Your task to perform on an android device: Open Google Maps Image 0: 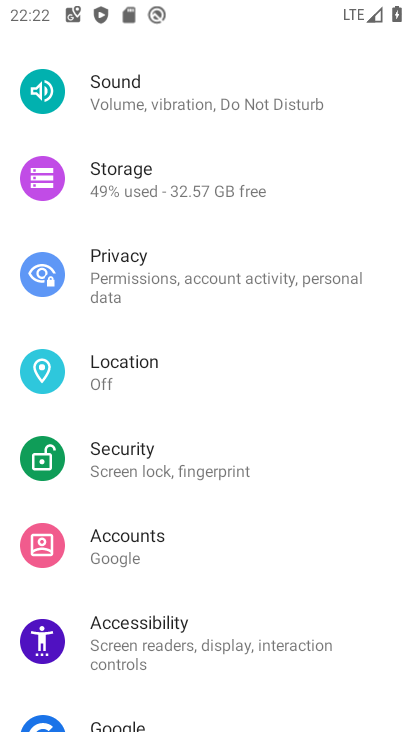
Step 0: press home button
Your task to perform on an android device: Open Google Maps Image 1: 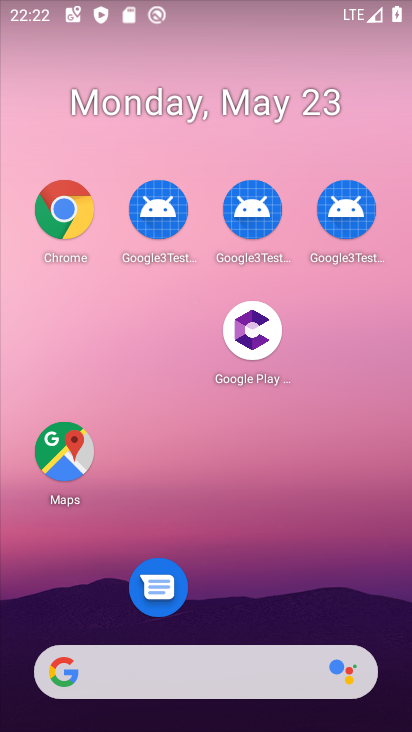
Step 1: click (46, 479)
Your task to perform on an android device: Open Google Maps Image 2: 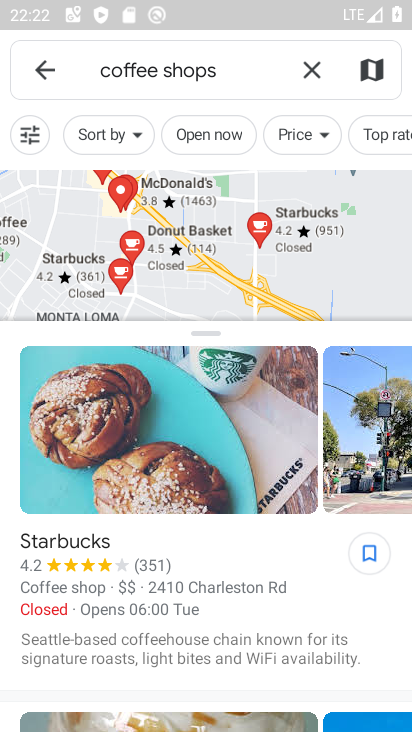
Step 2: task complete